Your task to perform on an android device: open app "Booking.com: Hotels and more" (install if not already installed) and enter user name: "misting@outlook.com" and password: "blandly" Image 0: 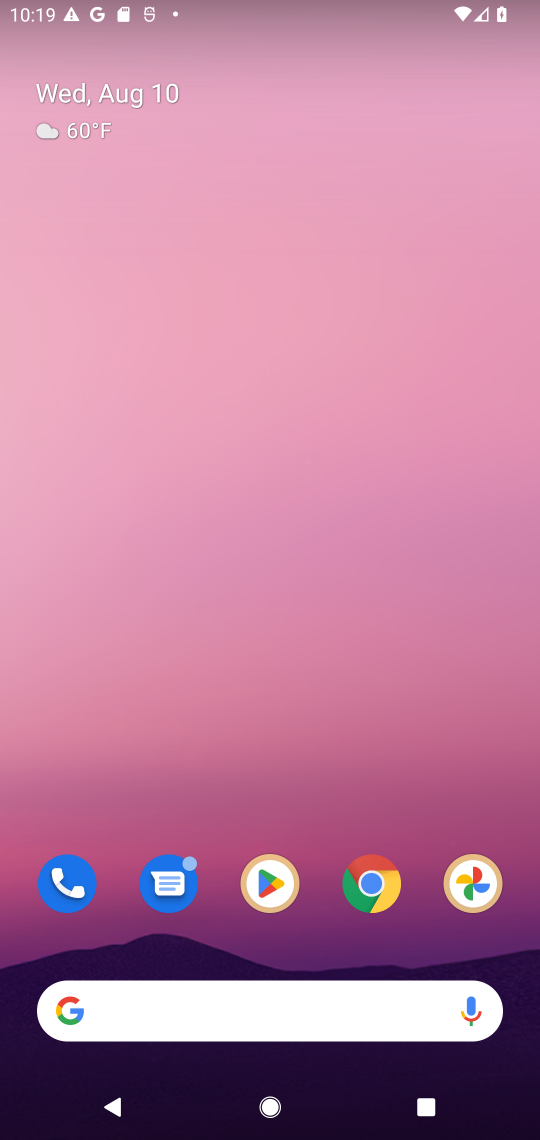
Step 0: drag from (439, 681) to (437, 85)
Your task to perform on an android device: open app "Booking.com: Hotels and more" (install if not already installed) and enter user name: "misting@outlook.com" and password: "blandly" Image 1: 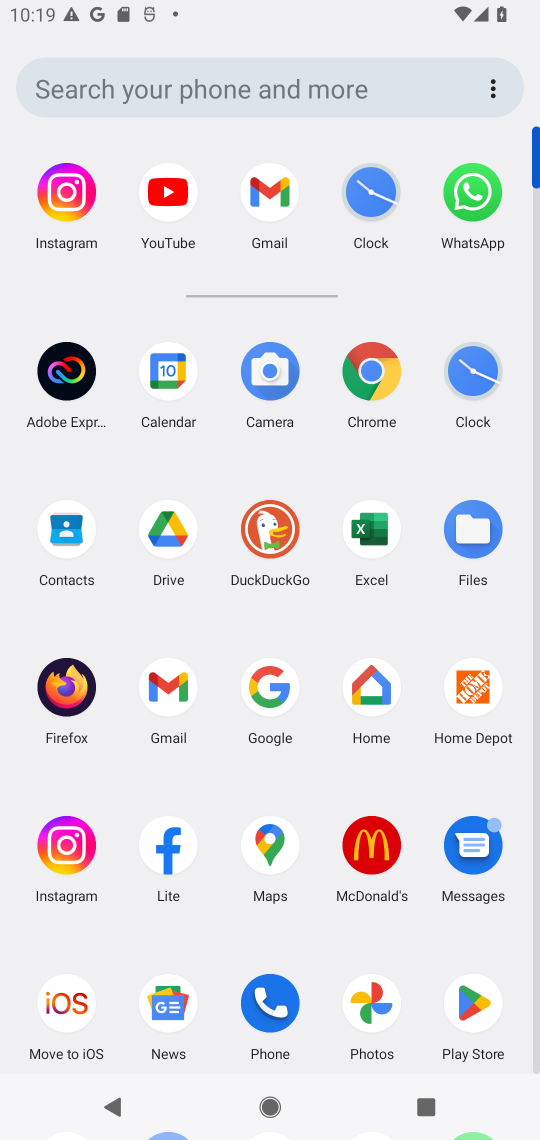
Step 1: click (472, 999)
Your task to perform on an android device: open app "Booking.com: Hotels and more" (install if not already installed) and enter user name: "misting@outlook.com" and password: "blandly" Image 2: 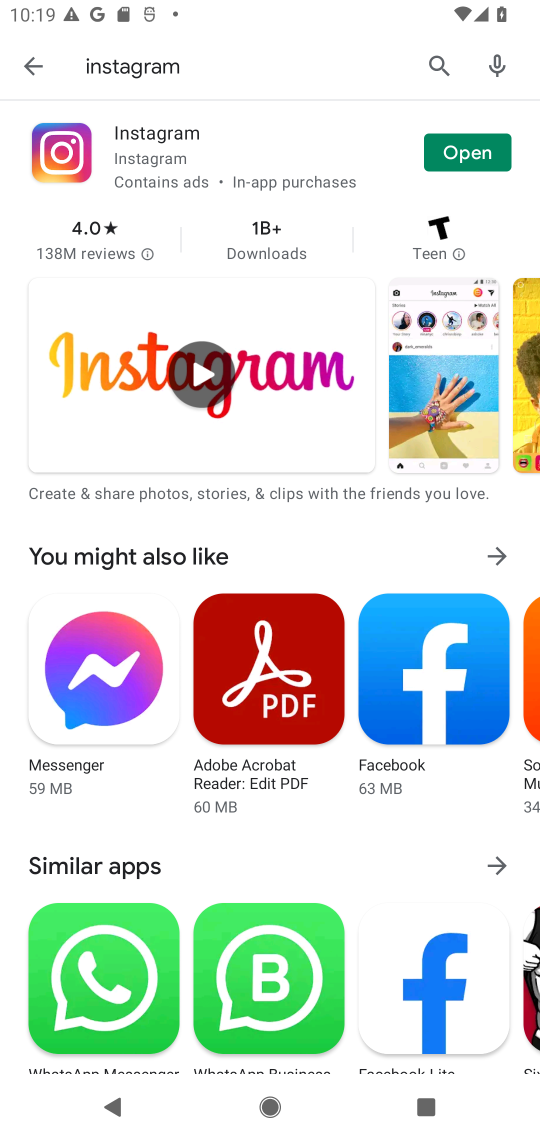
Step 2: click (435, 65)
Your task to perform on an android device: open app "Booking.com: Hotels and more" (install if not already installed) and enter user name: "misting@outlook.com" and password: "blandly" Image 3: 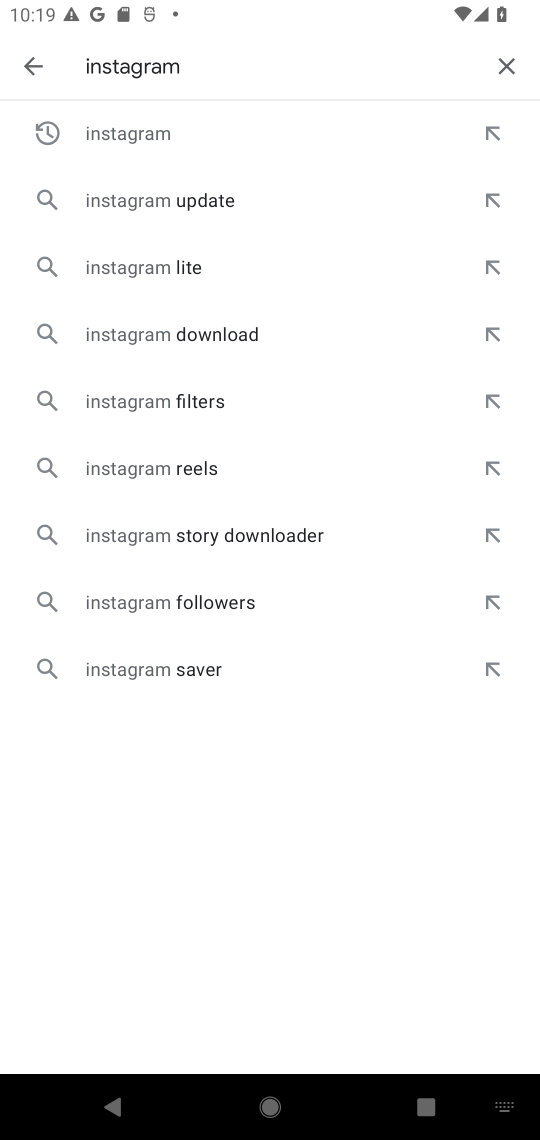
Step 3: click (496, 58)
Your task to perform on an android device: open app "Booking.com: Hotels and more" (install if not already installed) and enter user name: "misting@outlook.com" and password: "blandly" Image 4: 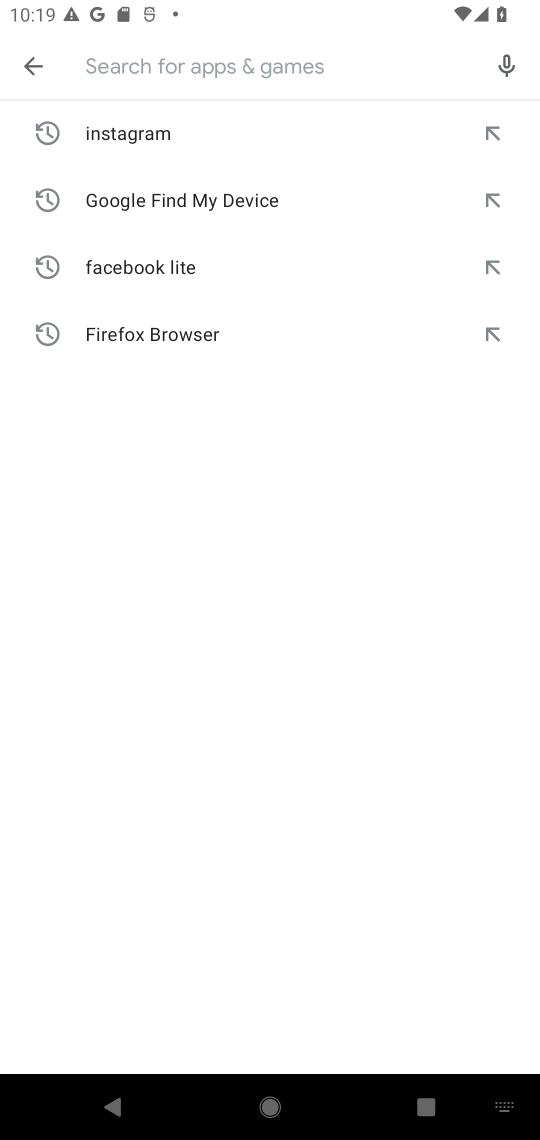
Step 4: type "Booking.com: Hotels and more"
Your task to perform on an android device: open app "Booking.com: Hotels and more" (install if not already installed) and enter user name: "misting@outlook.com" and password: "blandly" Image 5: 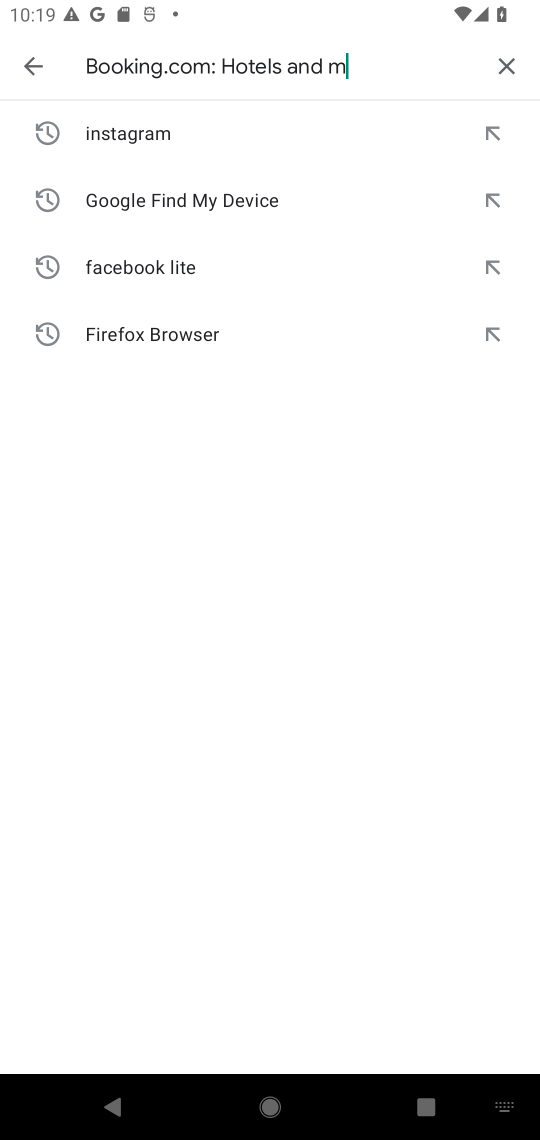
Step 5: press enter
Your task to perform on an android device: open app "Booking.com: Hotels and more" (install if not already installed) and enter user name: "misting@outlook.com" and password: "blandly" Image 6: 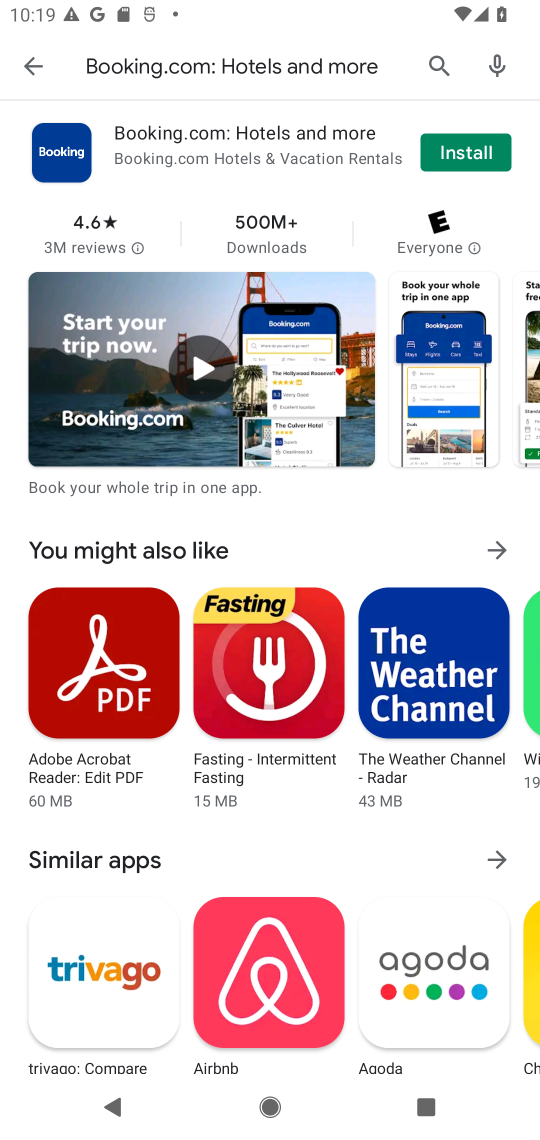
Step 6: click (466, 151)
Your task to perform on an android device: open app "Booking.com: Hotels and more" (install if not already installed) and enter user name: "misting@outlook.com" and password: "blandly" Image 7: 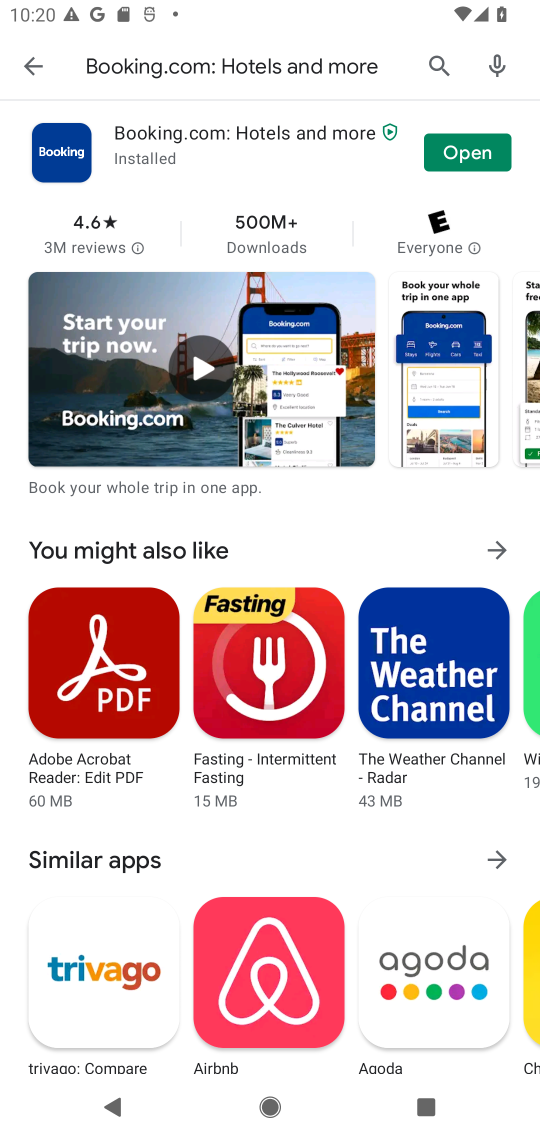
Step 7: click (457, 141)
Your task to perform on an android device: open app "Booking.com: Hotels and more" (install if not already installed) and enter user name: "misting@outlook.com" and password: "blandly" Image 8: 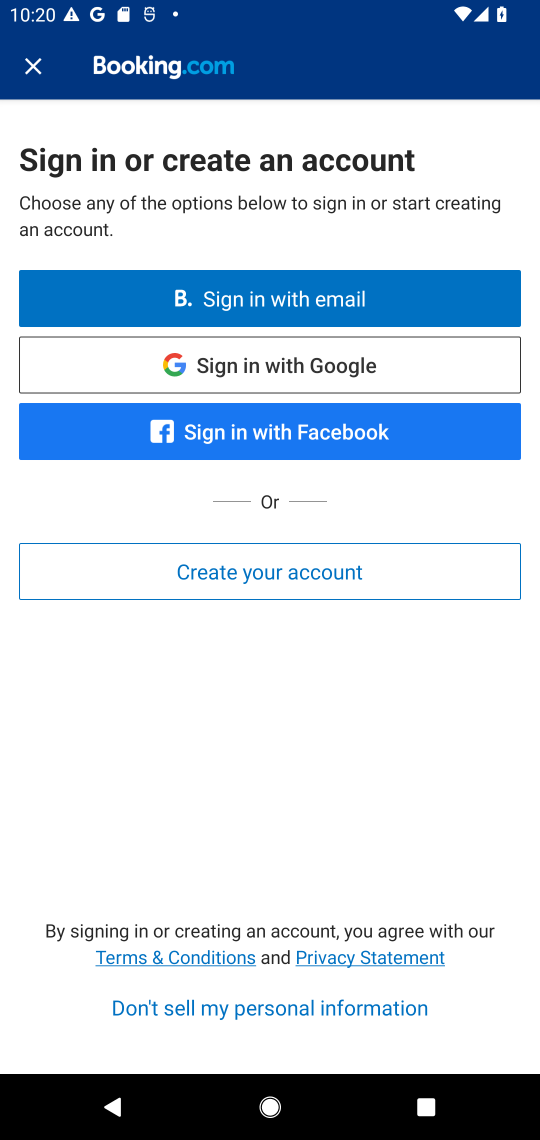
Step 8: click (280, 303)
Your task to perform on an android device: open app "Booking.com: Hotels and more" (install if not already installed) and enter user name: "misting@outlook.com" and password: "blandly" Image 9: 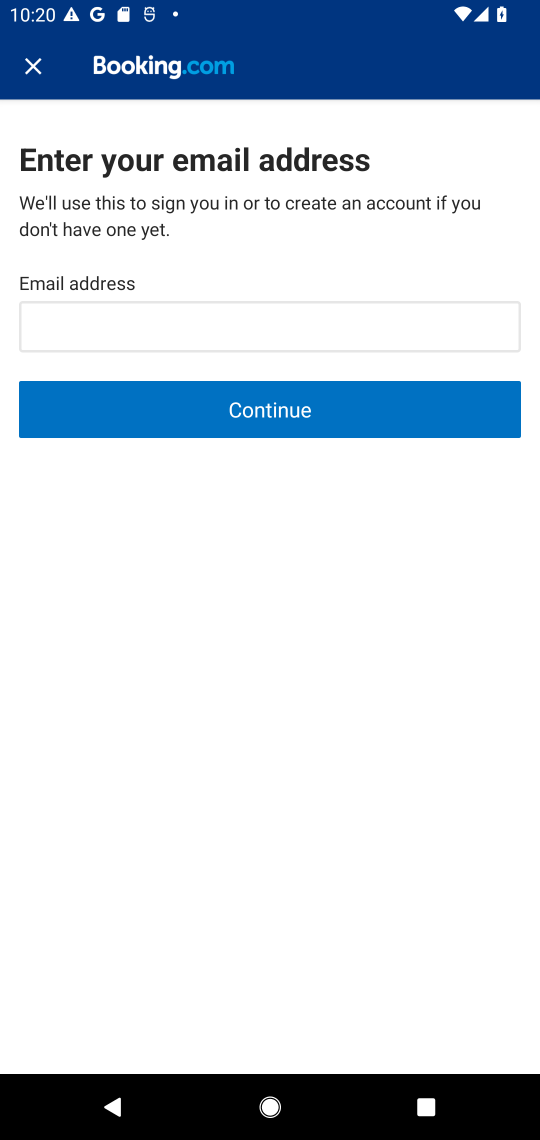
Step 9: click (202, 335)
Your task to perform on an android device: open app "Booking.com: Hotels and more" (install if not already installed) and enter user name: "misting@outlook.com" and password: "blandly" Image 10: 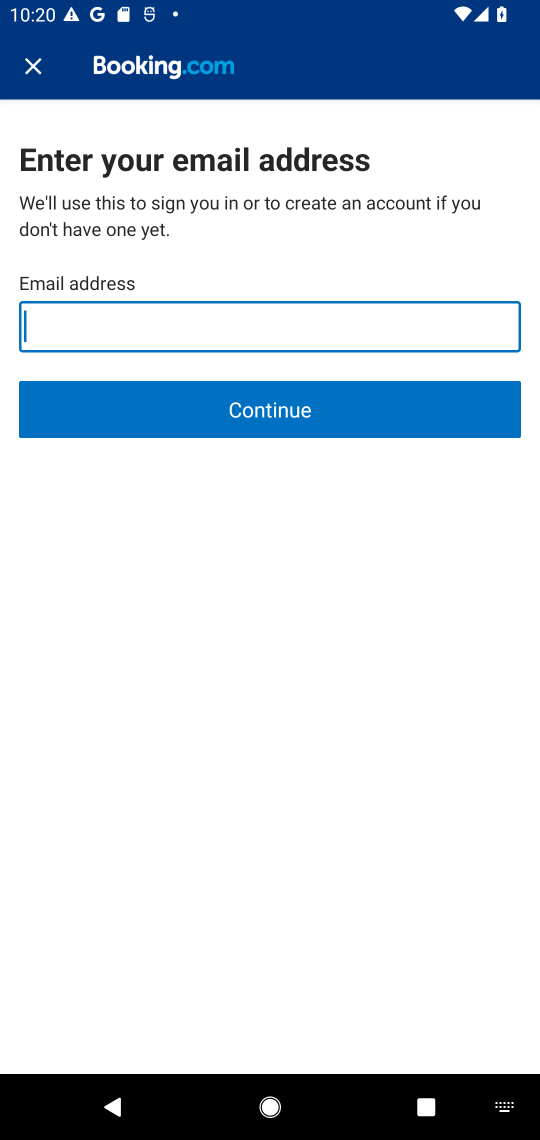
Step 10: type "misting@outlook.com"
Your task to perform on an android device: open app "Booking.com: Hotels and more" (install if not already installed) and enter user name: "misting@outlook.com" and password: "blandly" Image 11: 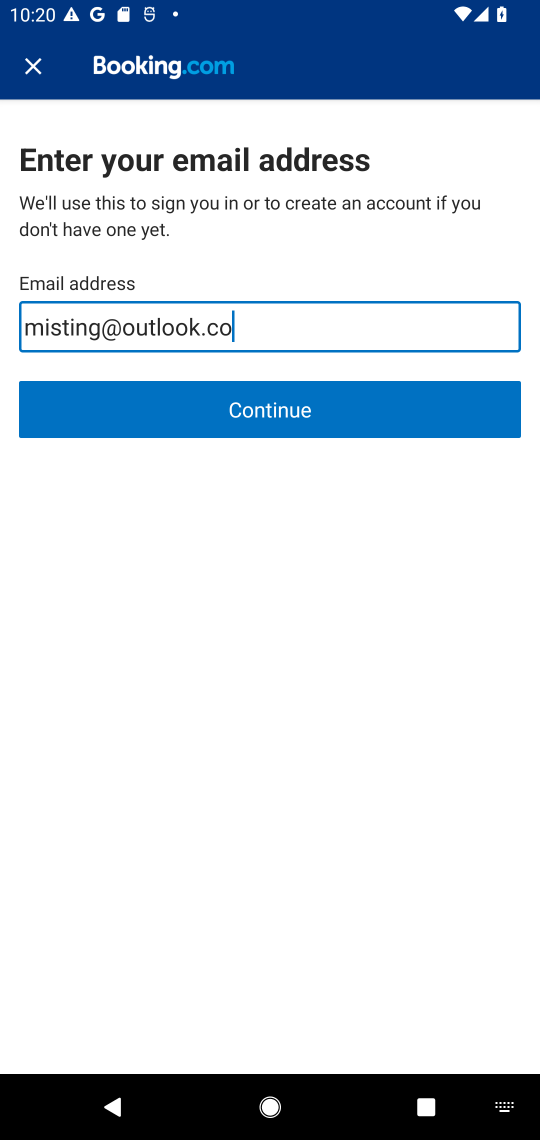
Step 11: press enter
Your task to perform on an android device: open app "Booking.com: Hotels and more" (install if not already installed) and enter user name: "misting@outlook.com" and password: "blandly" Image 12: 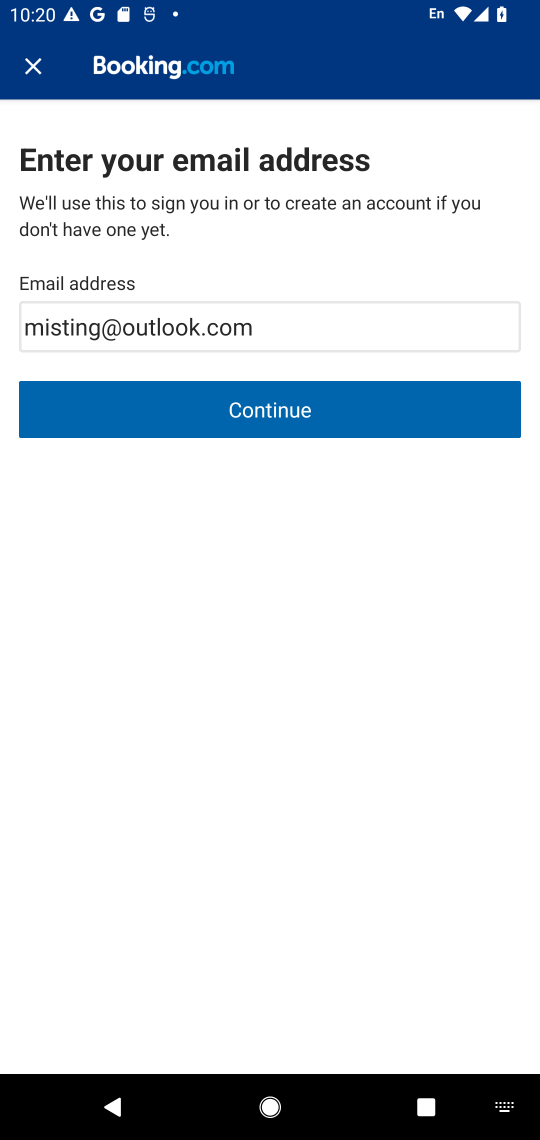
Step 12: click (468, 404)
Your task to perform on an android device: open app "Booking.com: Hotels and more" (install if not already installed) and enter user name: "misting@outlook.com" and password: "blandly" Image 13: 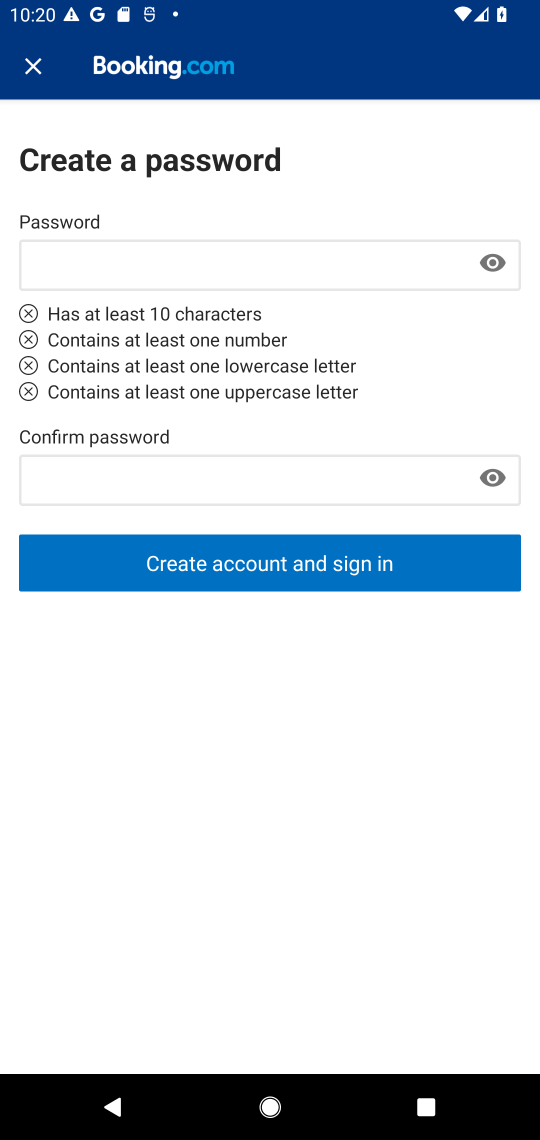
Step 13: click (348, 271)
Your task to perform on an android device: open app "Booking.com: Hotels and more" (install if not already installed) and enter user name: "misting@outlook.com" and password: "blandly" Image 14: 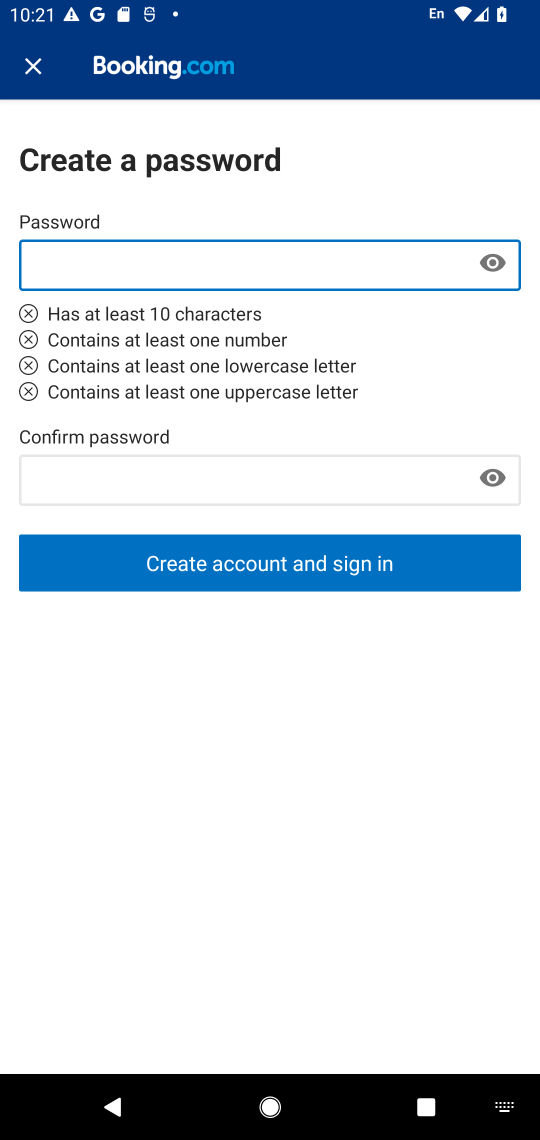
Step 14: press enter
Your task to perform on an android device: open app "Booking.com: Hotels and more" (install if not already installed) and enter user name: "misting@outlook.com" and password: "blandly" Image 15: 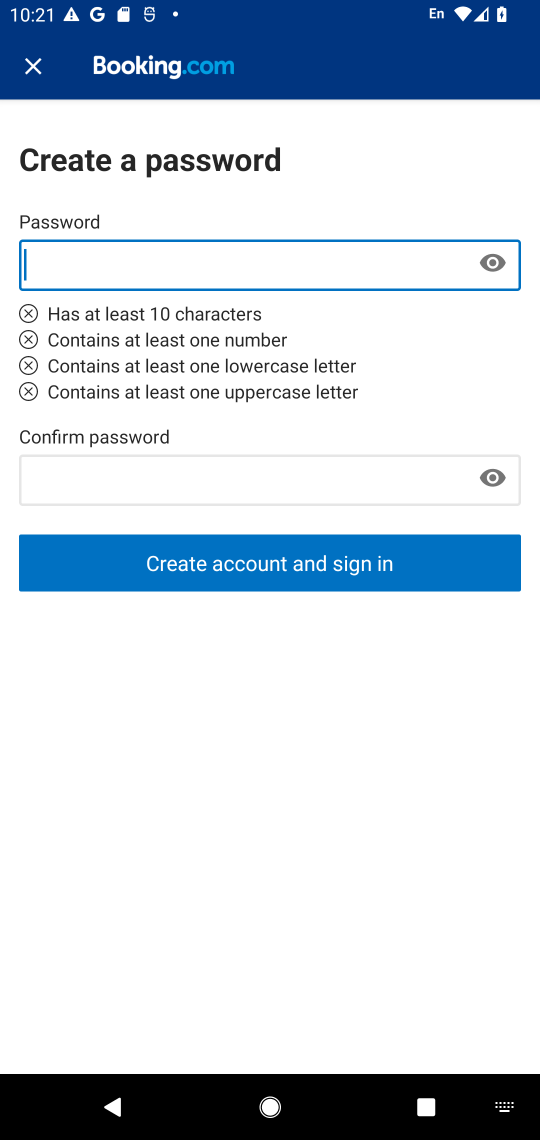
Step 15: type "blandly"
Your task to perform on an android device: open app "Booking.com: Hotels and more" (install if not already installed) and enter user name: "misting@outlook.com" and password: "blandly" Image 16: 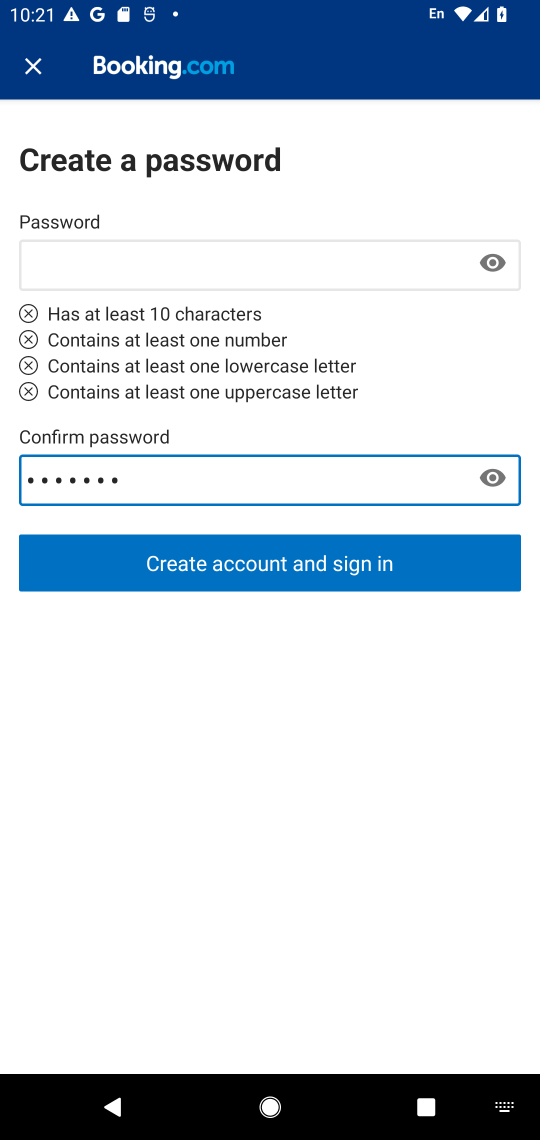
Step 16: task complete